Your task to perform on an android device: Is it going to rain today? Image 0: 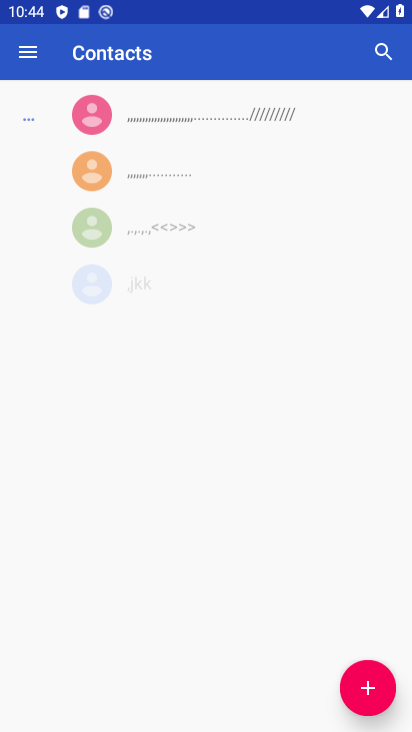
Step 0: drag from (185, 663) to (266, 334)
Your task to perform on an android device: Is it going to rain today? Image 1: 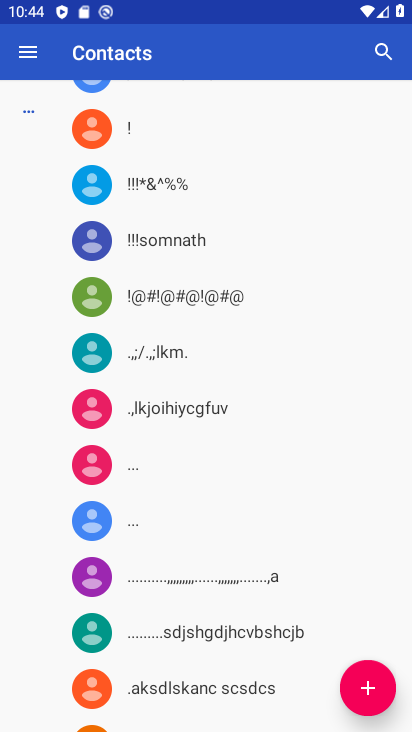
Step 1: press home button
Your task to perform on an android device: Is it going to rain today? Image 2: 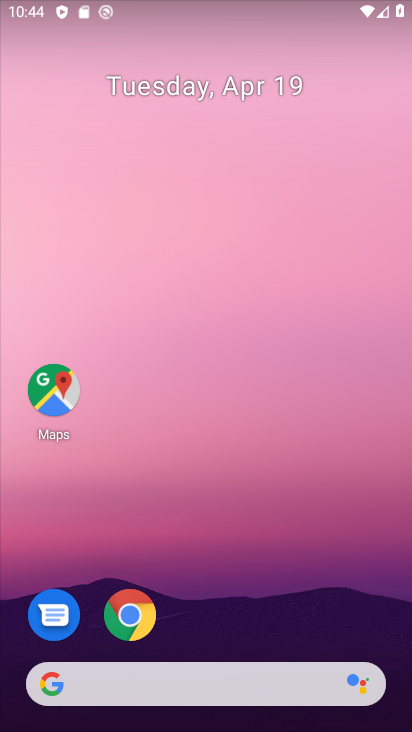
Step 2: drag from (230, 607) to (230, 337)
Your task to perform on an android device: Is it going to rain today? Image 3: 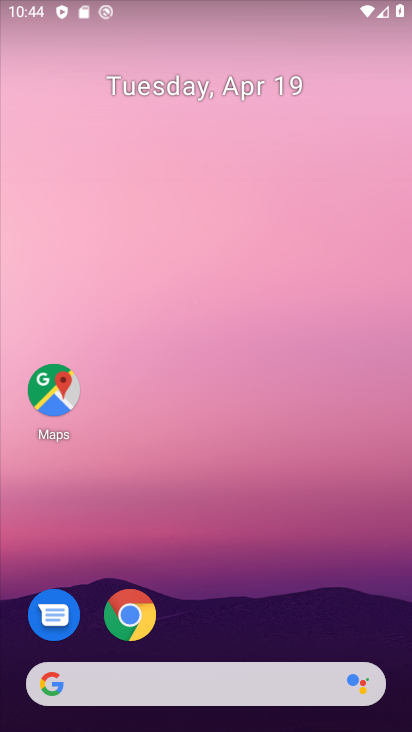
Step 3: drag from (173, 661) to (171, 328)
Your task to perform on an android device: Is it going to rain today? Image 4: 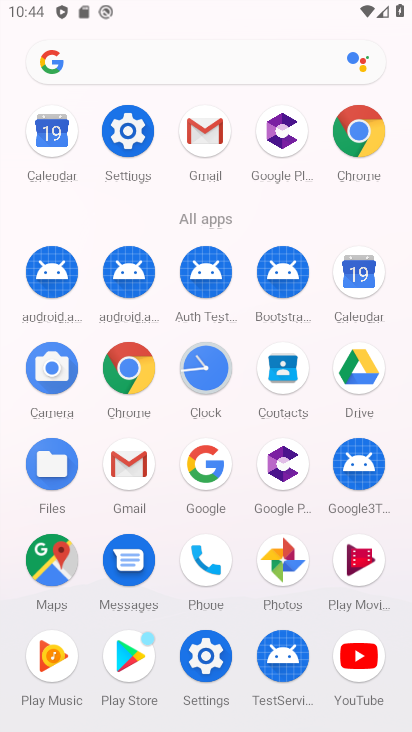
Step 4: click (210, 457)
Your task to perform on an android device: Is it going to rain today? Image 5: 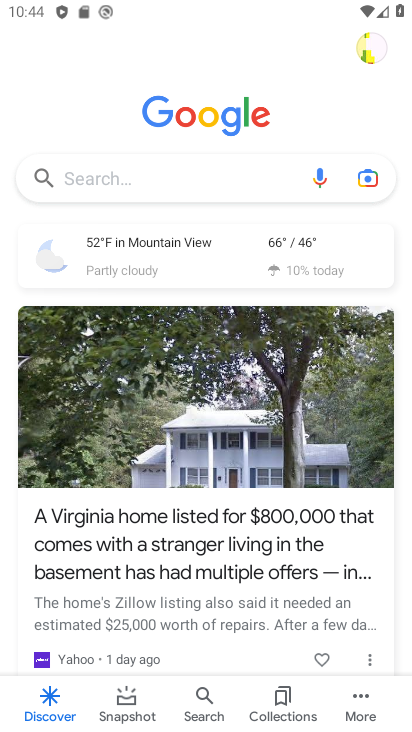
Step 5: click (270, 265)
Your task to perform on an android device: Is it going to rain today? Image 6: 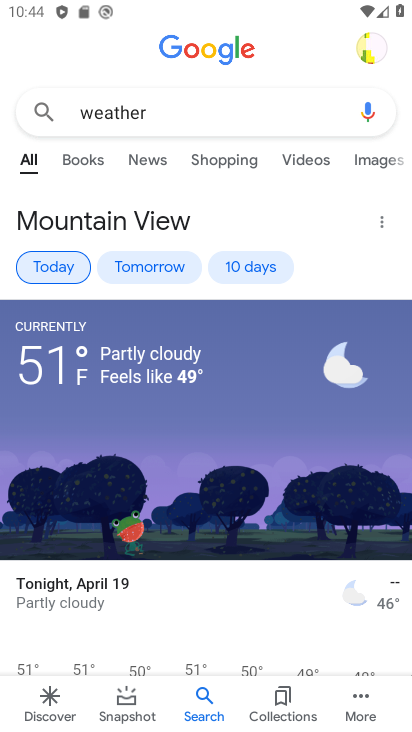
Step 6: task complete